Your task to perform on an android device: Open calendar and show me the first week of next month Image 0: 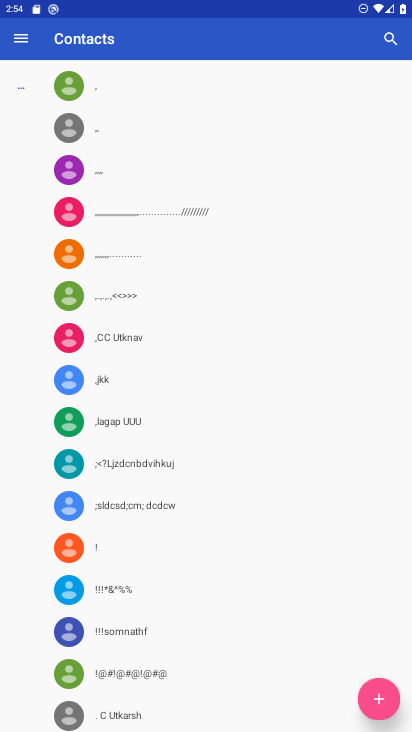
Step 0: press home button
Your task to perform on an android device: Open calendar and show me the first week of next month Image 1: 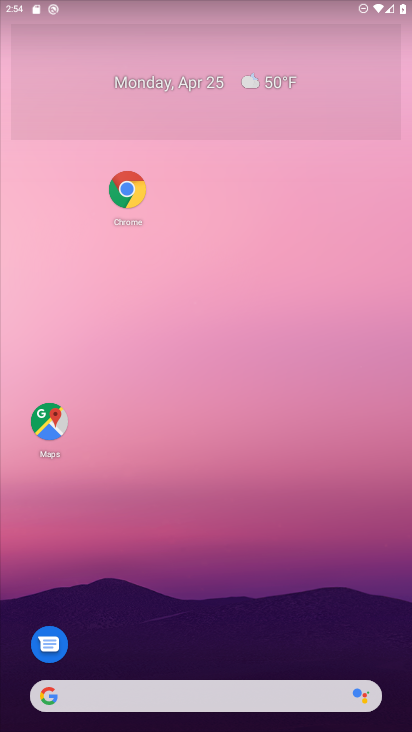
Step 1: drag from (197, 637) to (226, 91)
Your task to perform on an android device: Open calendar and show me the first week of next month Image 2: 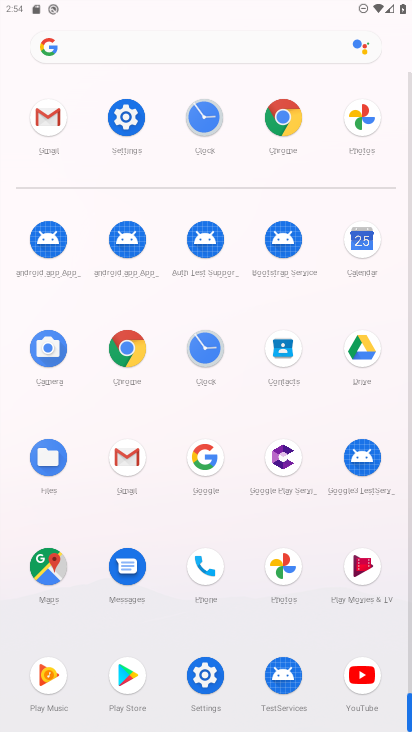
Step 2: click (358, 244)
Your task to perform on an android device: Open calendar and show me the first week of next month Image 3: 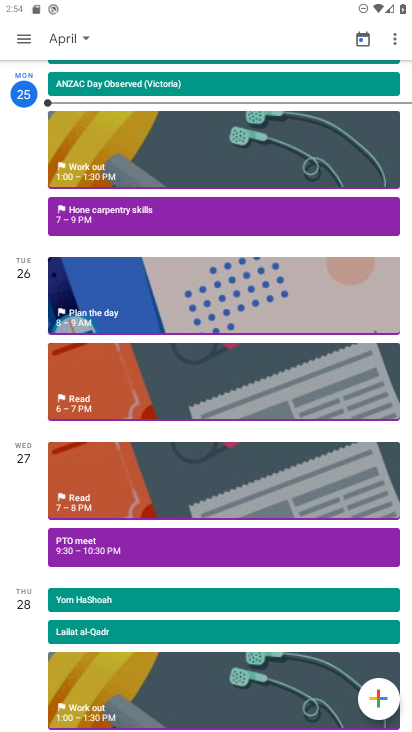
Step 3: click (80, 38)
Your task to perform on an android device: Open calendar and show me the first week of next month Image 4: 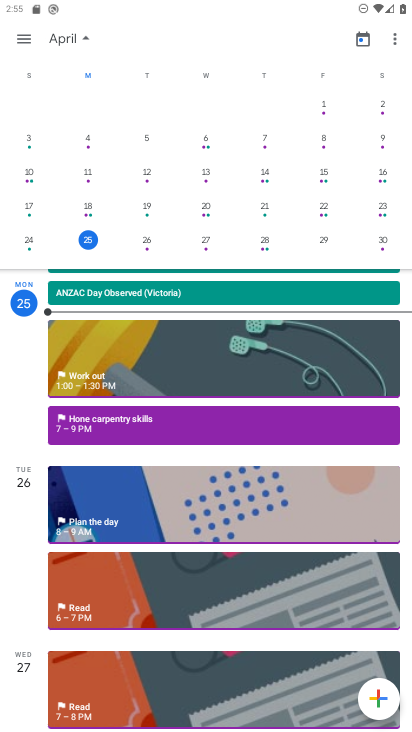
Step 4: drag from (390, 189) to (0, 176)
Your task to perform on an android device: Open calendar and show me the first week of next month Image 5: 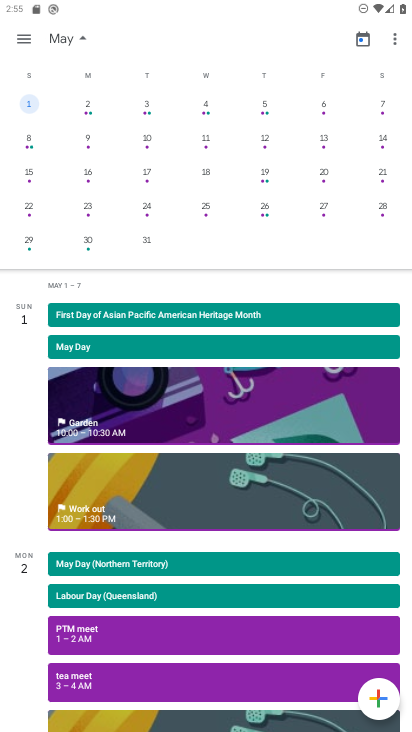
Step 5: click (207, 108)
Your task to perform on an android device: Open calendar and show me the first week of next month Image 6: 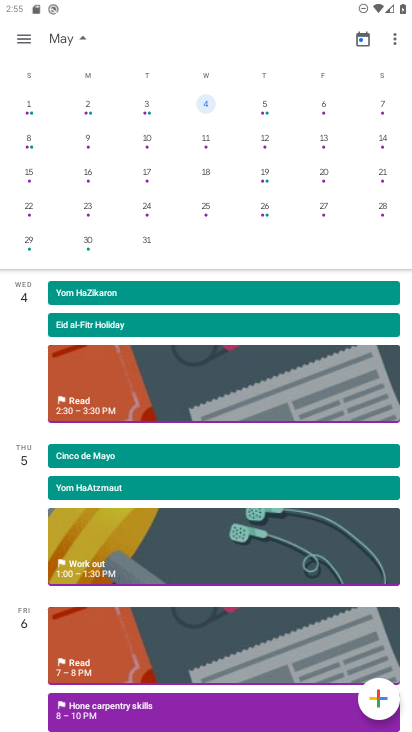
Step 6: click (265, 106)
Your task to perform on an android device: Open calendar and show me the first week of next month Image 7: 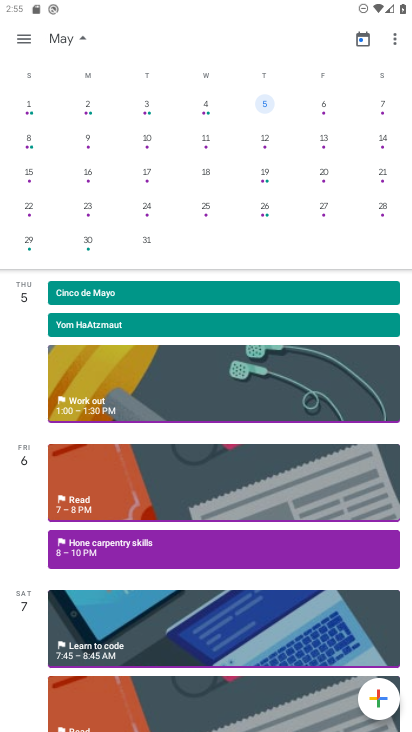
Step 7: click (21, 41)
Your task to perform on an android device: Open calendar and show me the first week of next month Image 8: 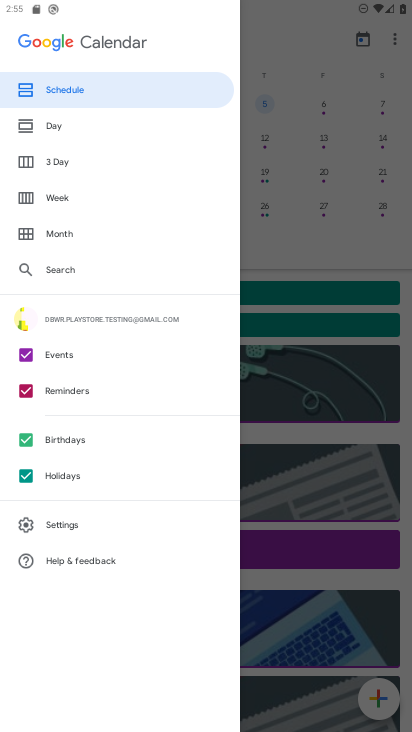
Step 8: click (51, 203)
Your task to perform on an android device: Open calendar and show me the first week of next month Image 9: 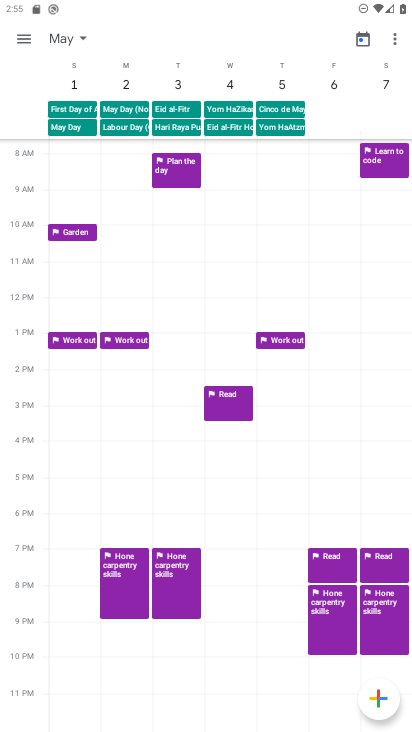
Step 9: task complete